Your task to perform on an android device: Open display settings Image 0: 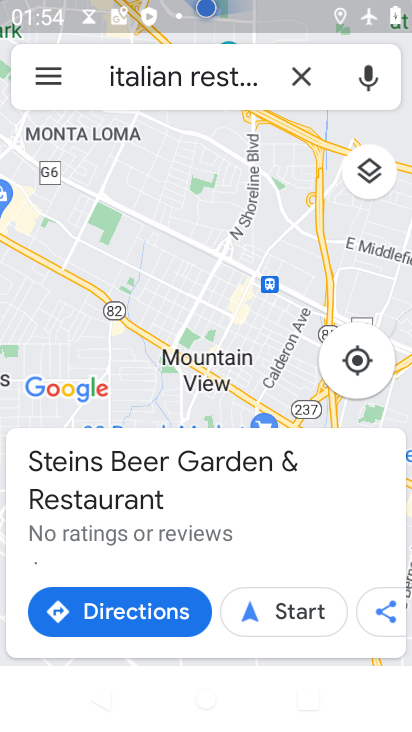
Step 0: press home button
Your task to perform on an android device: Open display settings Image 1: 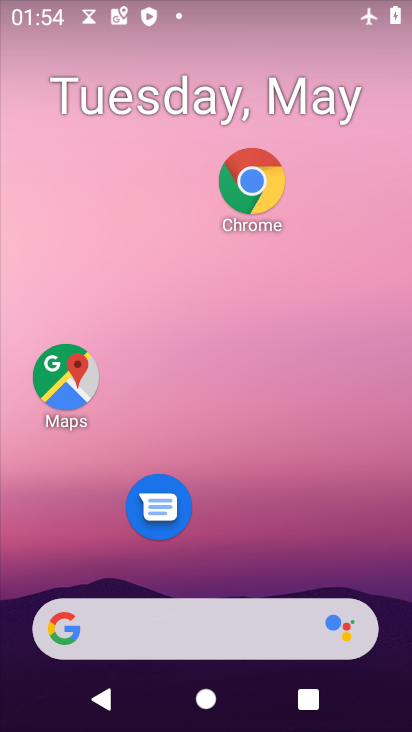
Step 1: drag from (288, 567) to (291, 252)
Your task to perform on an android device: Open display settings Image 2: 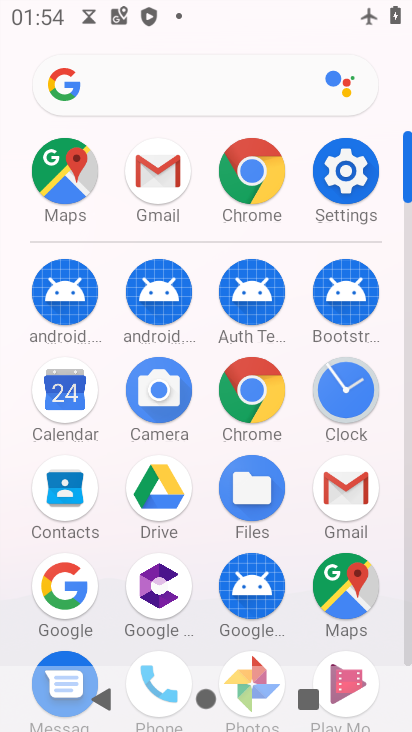
Step 2: click (363, 159)
Your task to perform on an android device: Open display settings Image 3: 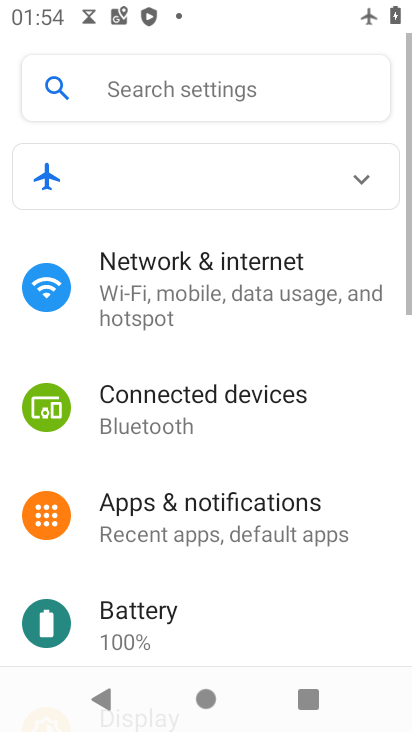
Step 3: drag from (308, 567) to (306, 232)
Your task to perform on an android device: Open display settings Image 4: 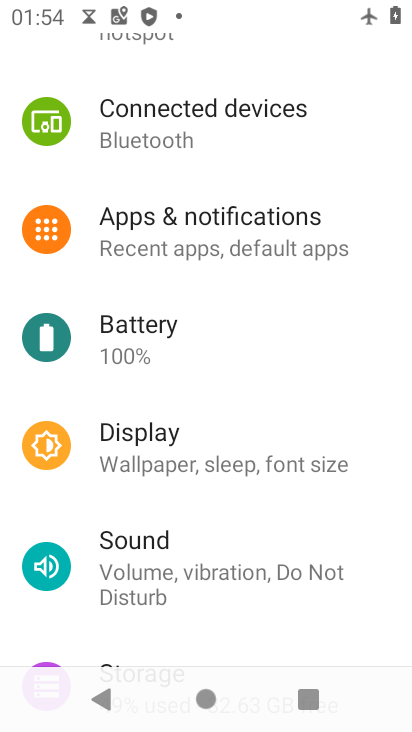
Step 4: click (160, 454)
Your task to perform on an android device: Open display settings Image 5: 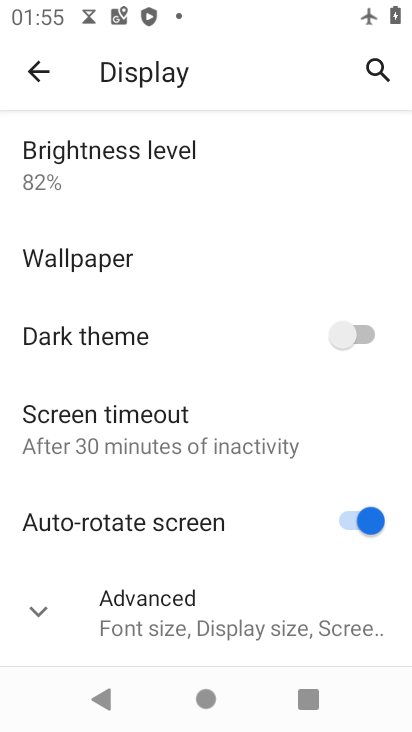
Step 5: task complete